Your task to perform on an android device: turn on the 24-hour format for clock Image 0: 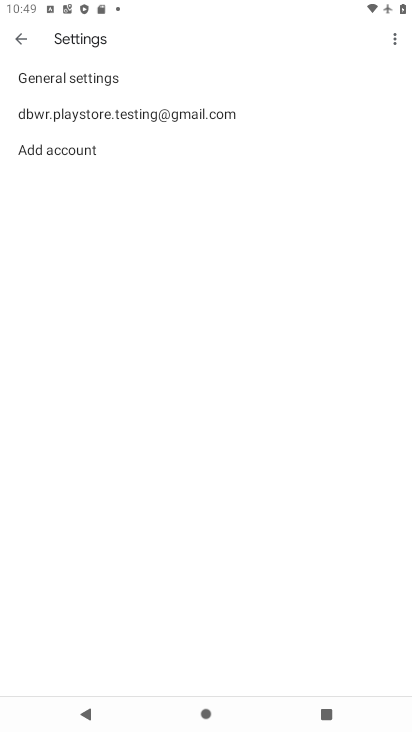
Step 0: press home button
Your task to perform on an android device: turn on the 24-hour format for clock Image 1: 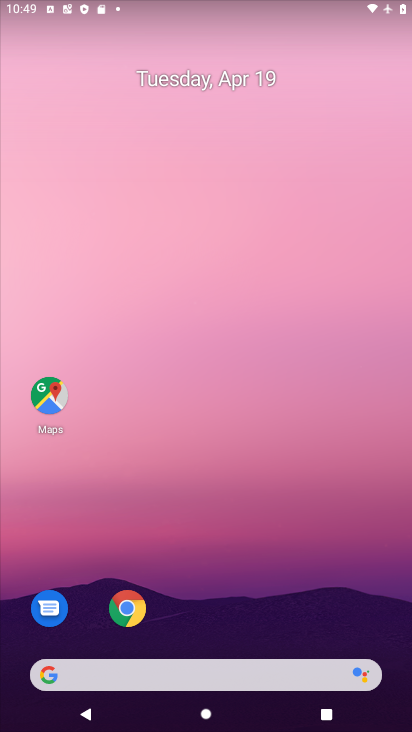
Step 1: drag from (375, 631) to (295, 88)
Your task to perform on an android device: turn on the 24-hour format for clock Image 2: 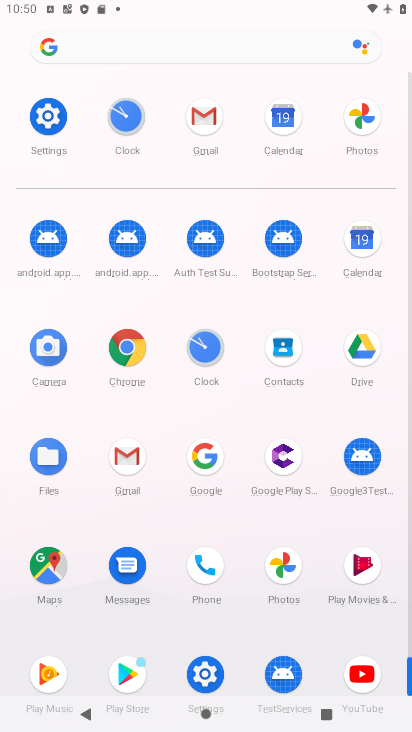
Step 2: click (203, 347)
Your task to perform on an android device: turn on the 24-hour format for clock Image 3: 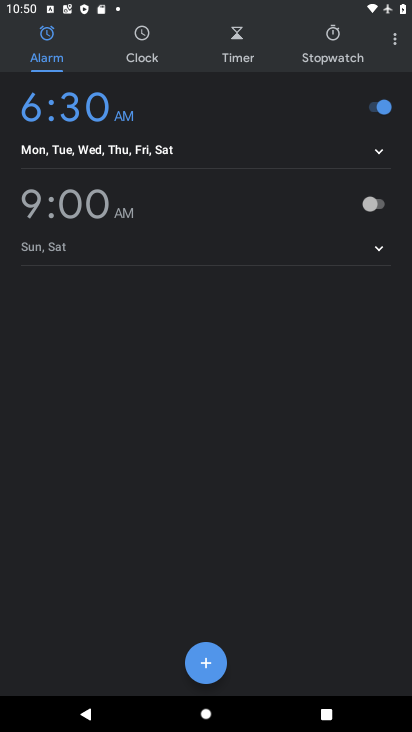
Step 3: click (394, 42)
Your task to perform on an android device: turn on the 24-hour format for clock Image 4: 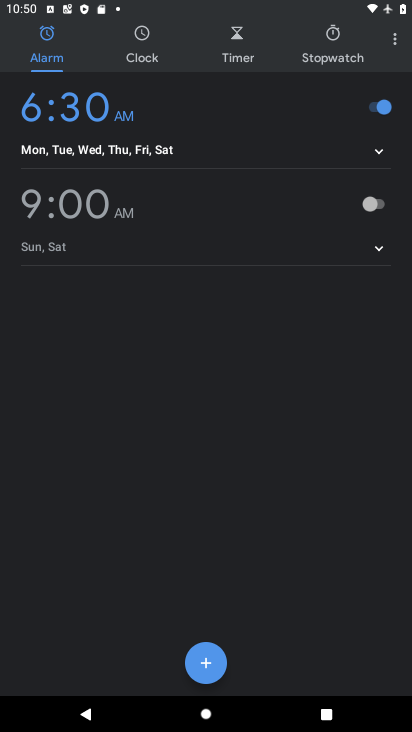
Step 4: click (392, 42)
Your task to perform on an android device: turn on the 24-hour format for clock Image 5: 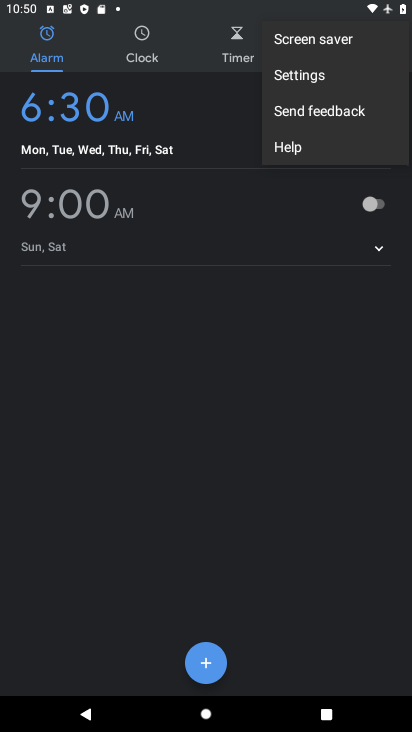
Step 5: click (297, 73)
Your task to perform on an android device: turn on the 24-hour format for clock Image 6: 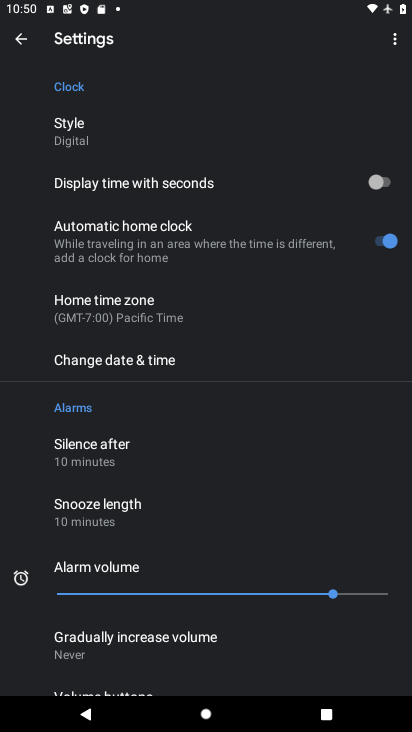
Step 6: click (122, 362)
Your task to perform on an android device: turn on the 24-hour format for clock Image 7: 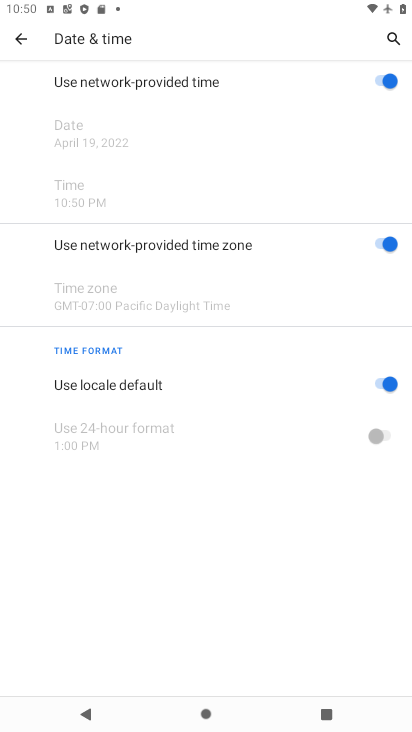
Step 7: click (385, 432)
Your task to perform on an android device: turn on the 24-hour format for clock Image 8: 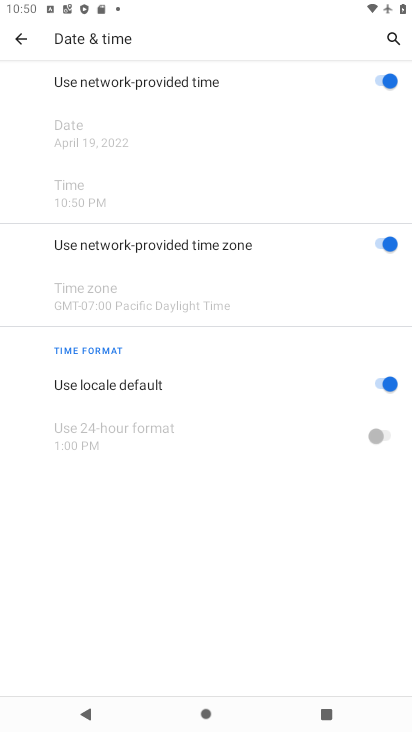
Step 8: click (376, 384)
Your task to perform on an android device: turn on the 24-hour format for clock Image 9: 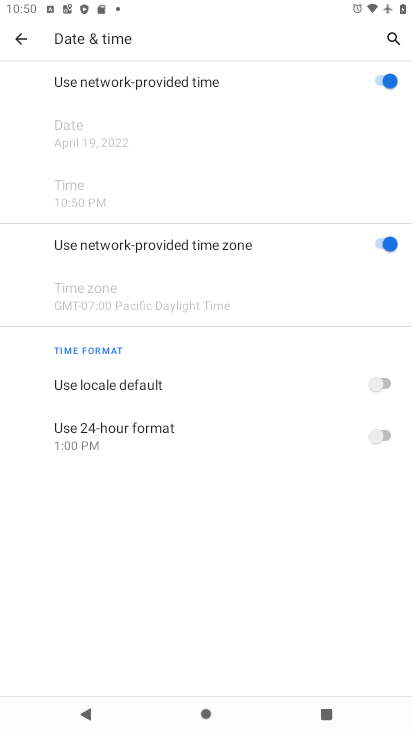
Step 9: click (385, 437)
Your task to perform on an android device: turn on the 24-hour format for clock Image 10: 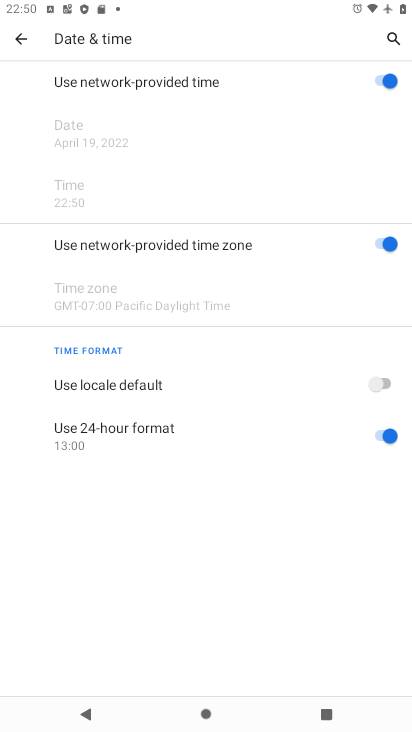
Step 10: task complete